Your task to perform on an android device: toggle sleep mode Image 0: 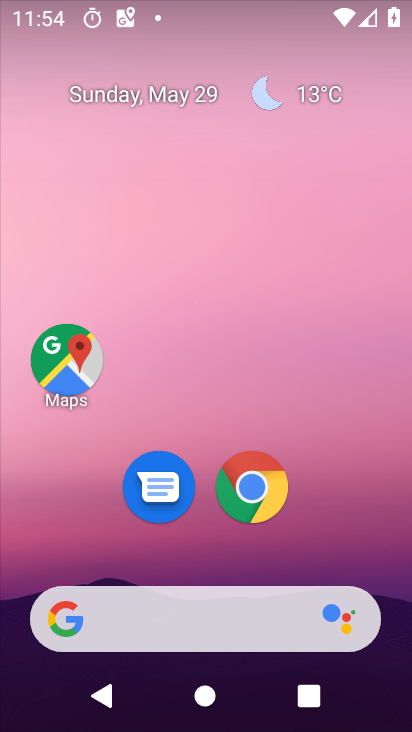
Step 0: drag from (384, 655) to (279, 181)
Your task to perform on an android device: toggle sleep mode Image 1: 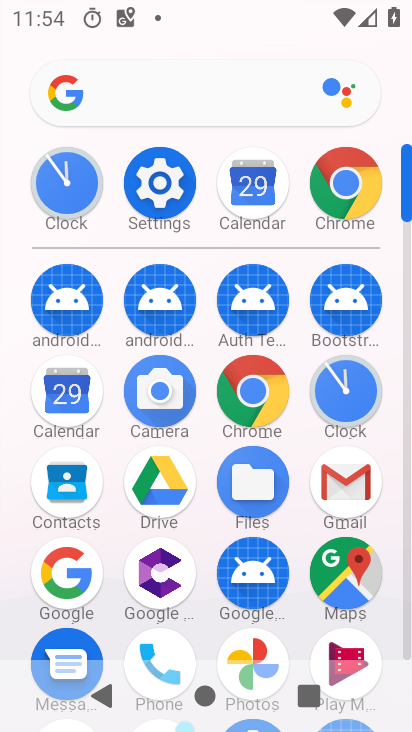
Step 1: click (169, 172)
Your task to perform on an android device: toggle sleep mode Image 2: 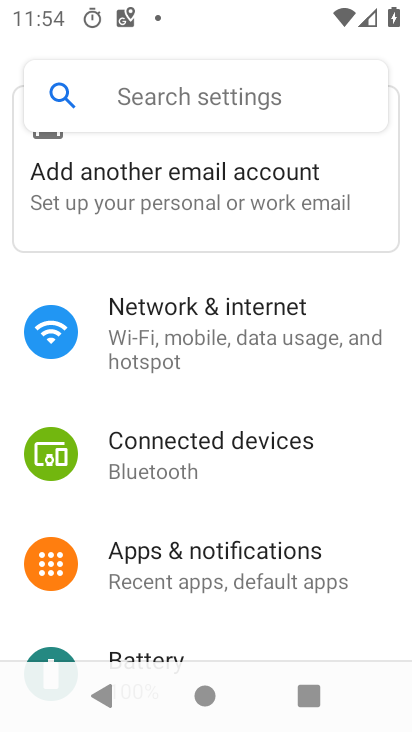
Step 2: drag from (181, 605) to (185, 275)
Your task to perform on an android device: toggle sleep mode Image 3: 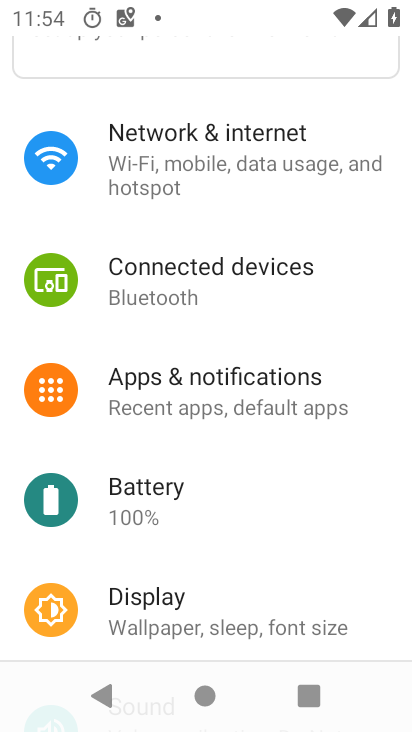
Step 3: click (149, 599)
Your task to perform on an android device: toggle sleep mode Image 4: 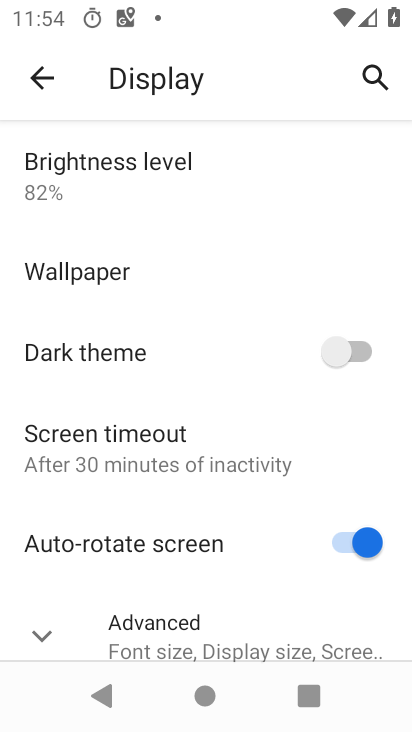
Step 4: drag from (237, 590) to (190, 211)
Your task to perform on an android device: toggle sleep mode Image 5: 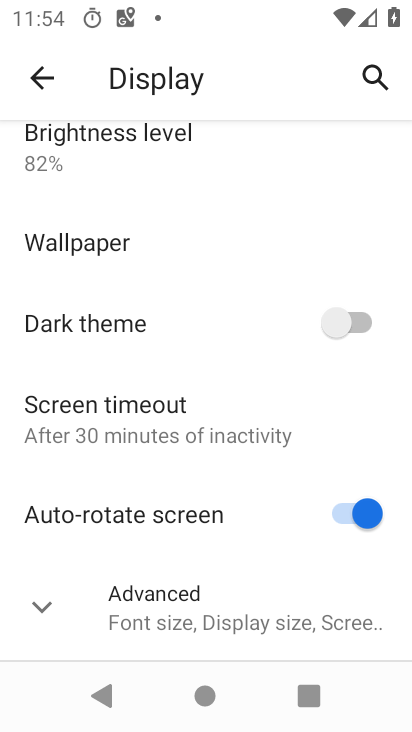
Step 5: click (94, 403)
Your task to perform on an android device: toggle sleep mode Image 6: 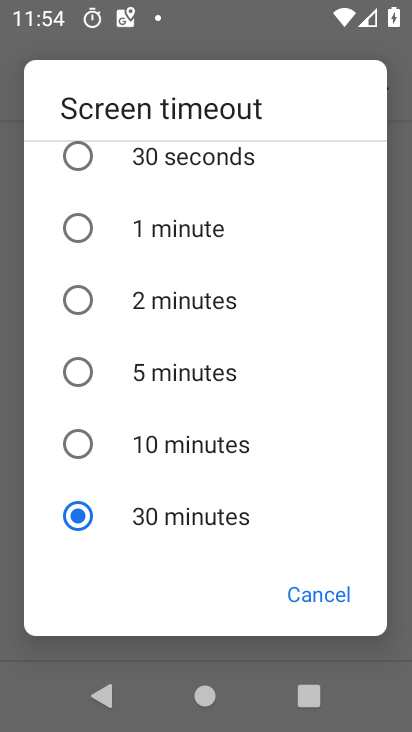
Step 6: click (82, 439)
Your task to perform on an android device: toggle sleep mode Image 7: 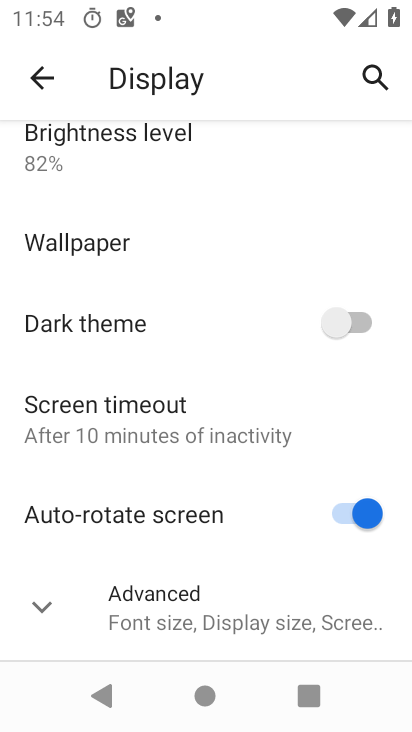
Step 7: task complete